Your task to perform on an android device: What's on my calendar today? Image 0: 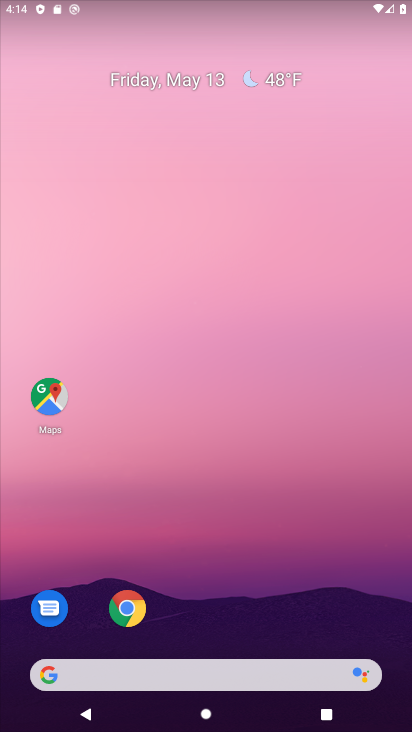
Step 0: drag from (227, 727) to (221, 192)
Your task to perform on an android device: What's on my calendar today? Image 1: 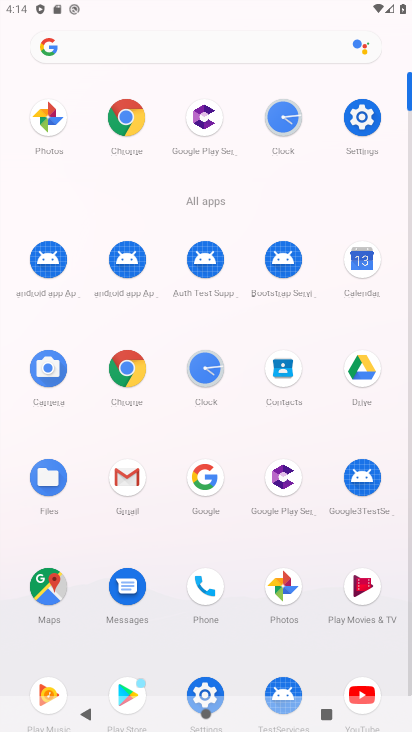
Step 1: click (366, 270)
Your task to perform on an android device: What's on my calendar today? Image 2: 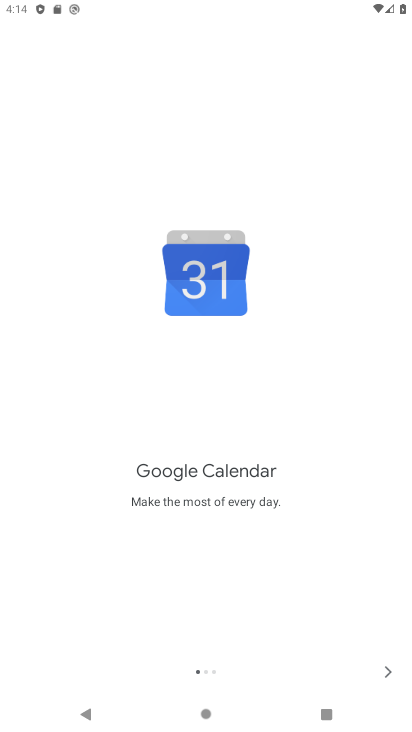
Step 2: click (387, 670)
Your task to perform on an android device: What's on my calendar today? Image 3: 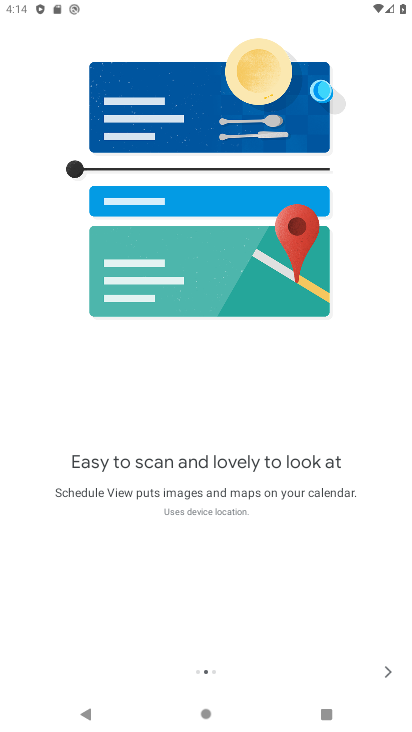
Step 3: click (387, 670)
Your task to perform on an android device: What's on my calendar today? Image 4: 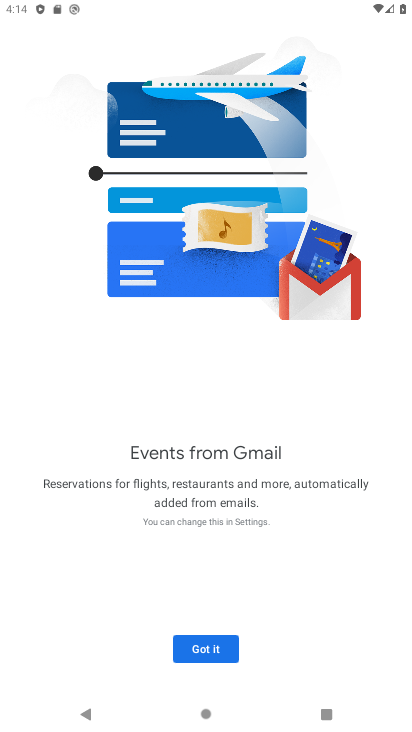
Step 4: click (205, 648)
Your task to perform on an android device: What's on my calendar today? Image 5: 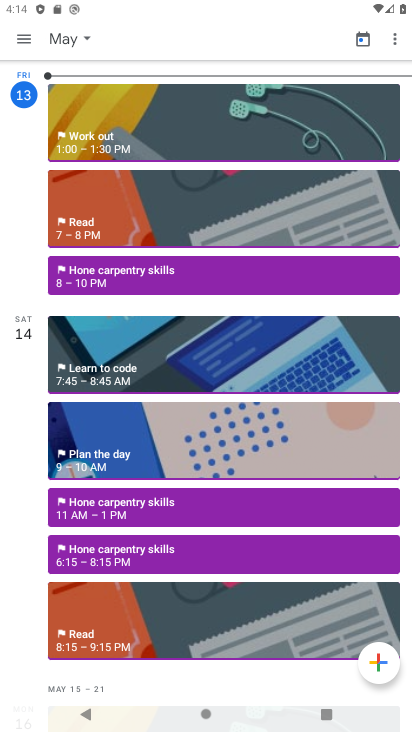
Step 5: click (64, 34)
Your task to perform on an android device: What's on my calendar today? Image 6: 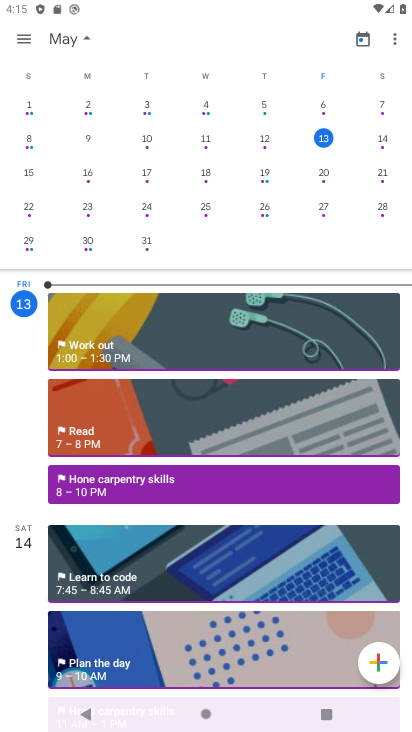
Step 6: click (321, 134)
Your task to perform on an android device: What's on my calendar today? Image 7: 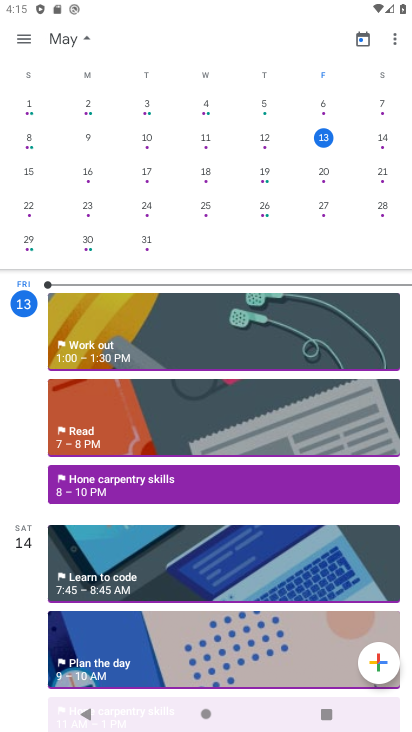
Step 7: task complete